Your task to perform on an android device: Open Amazon Image 0: 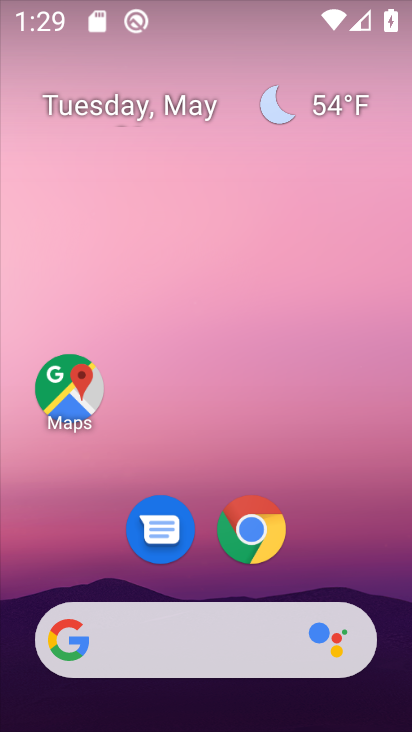
Step 0: click (310, 495)
Your task to perform on an android device: Open Amazon Image 1: 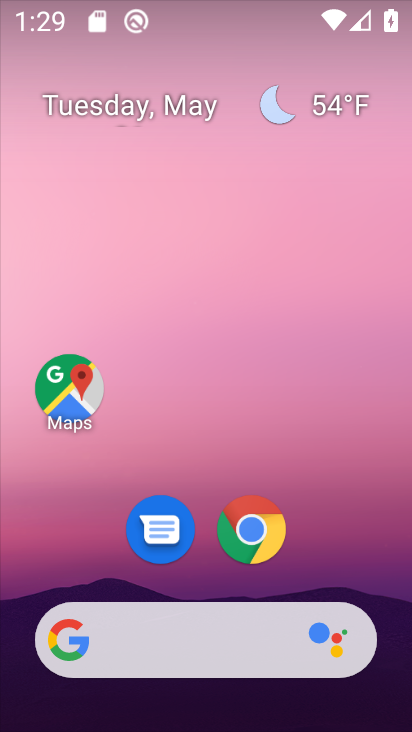
Step 1: click (343, 569)
Your task to perform on an android device: Open Amazon Image 2: 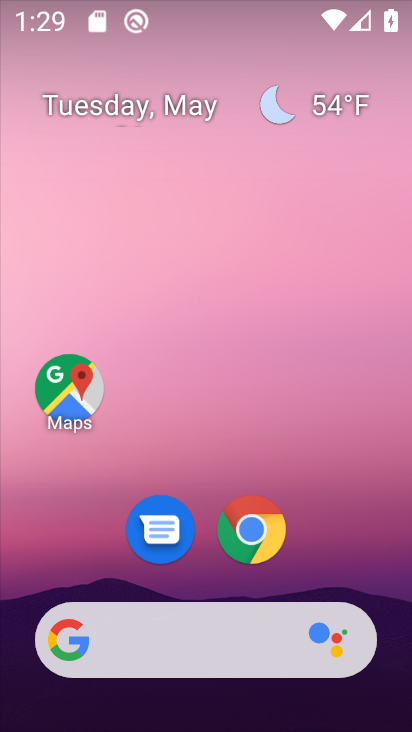
Step 2: click (256, 522)
Your task to perform on an android device: Open Amazon Image 3: 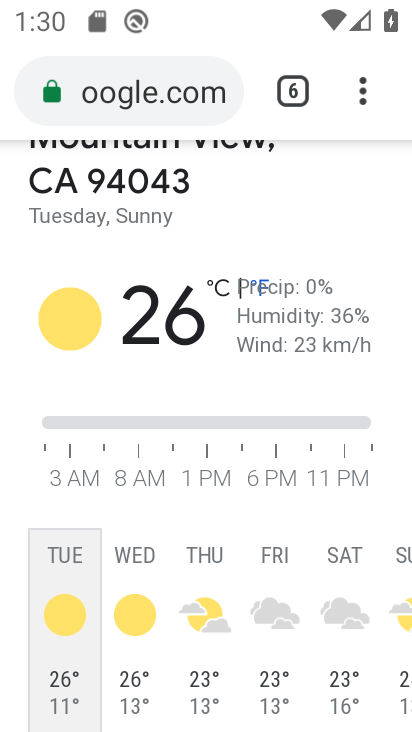
Step 3: click (358, 90)
Your task to perform on an android device: Open Amazon Image 4: 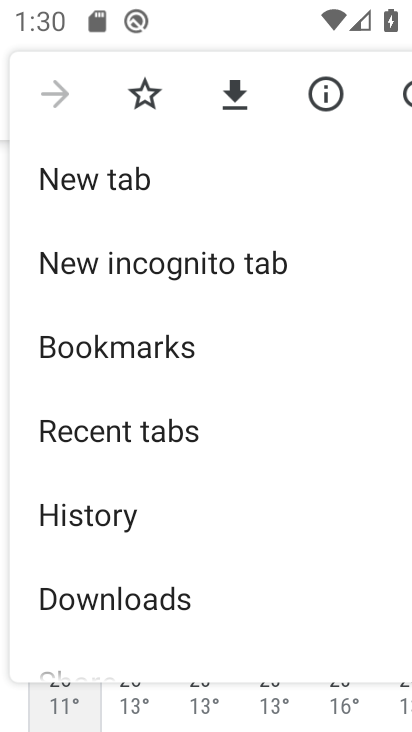
Step 4: click (101, 191)
Your task to perform on an android device: Open Amazon Image 5: 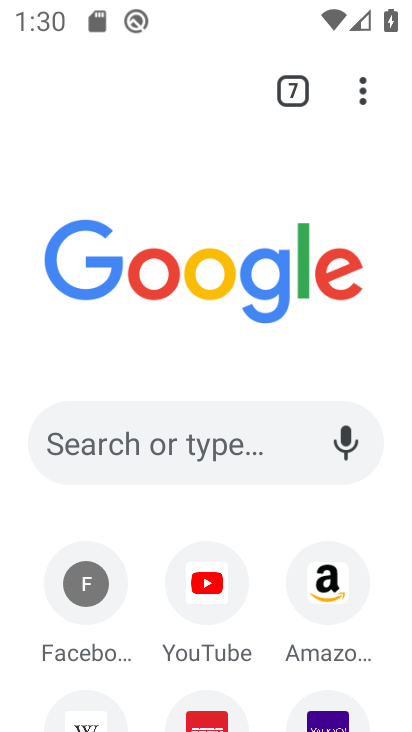
Step 5: click (329, 571)
Your task to perform on an android device: Open Amazon Image 6: 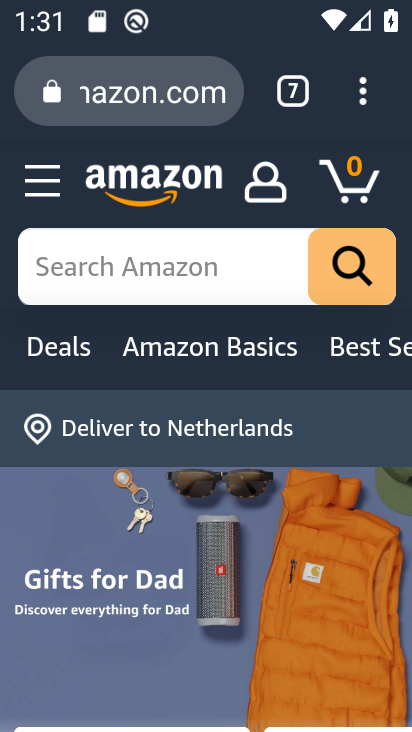
Step 6: task complete